Your task to perform on an android device: turn off translation in the chrome app Image 0: 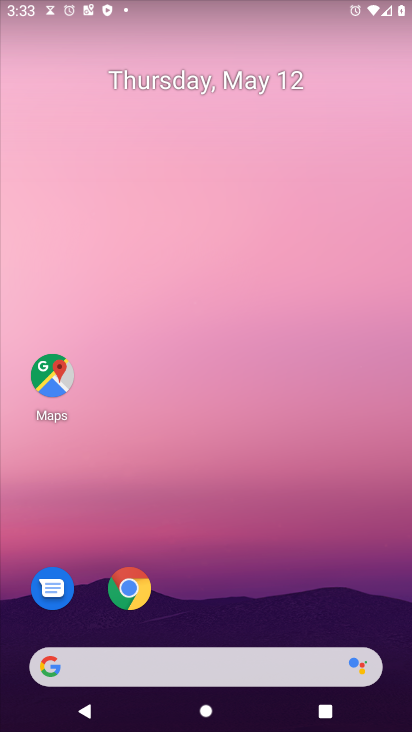
Step 0: drag from (243, 563) to (149, 2)
Your task to perform on an android device: turn off translation in the chrome app Image 1: 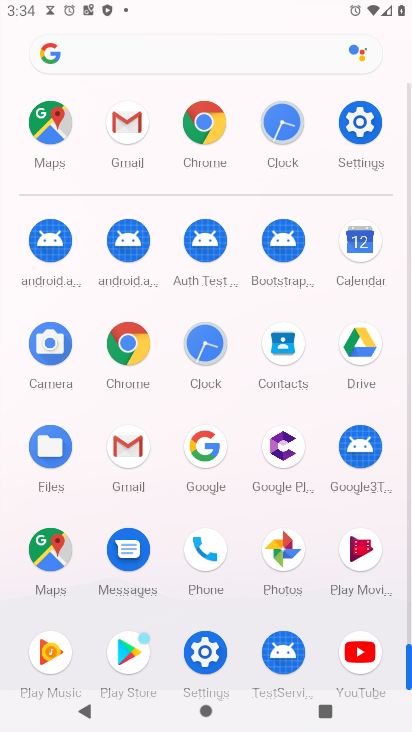
Step 1: drag from (11, 559) to (11, 260)
Your task to perform on an android device: turn off translation in the chrome app Image 2: 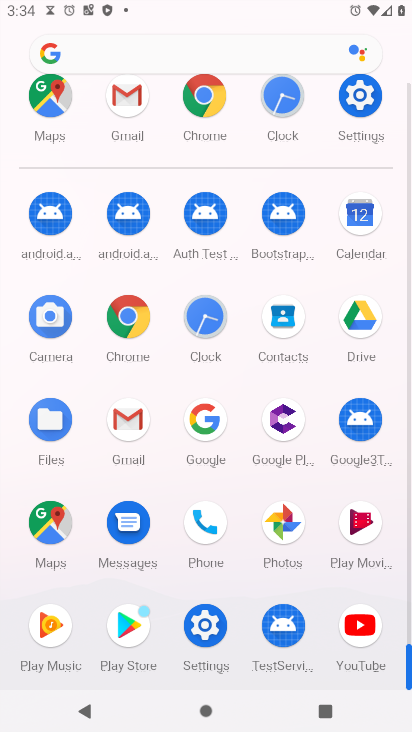
Step 2: drag from (16, 406) to (10, 184)
Your task to perform on an android device: turn off translation in the chrome app Image 3: 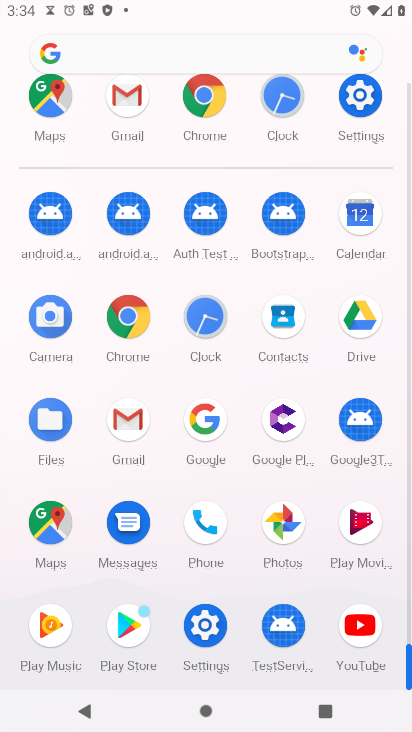
Step 3: click (117, 313)
Your task to perform on an android device: turn off translation in the chrome app Image 4: 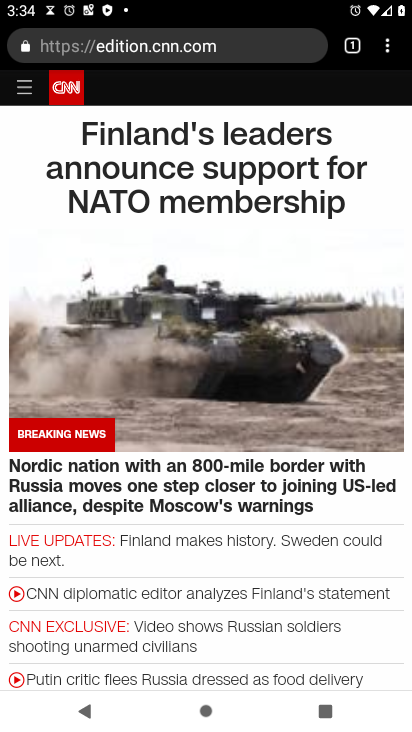
Step 4: drag from (385, 42) to (241, 544)
Your task to perform on an android device: turn off translation in the chrome app Image 5: 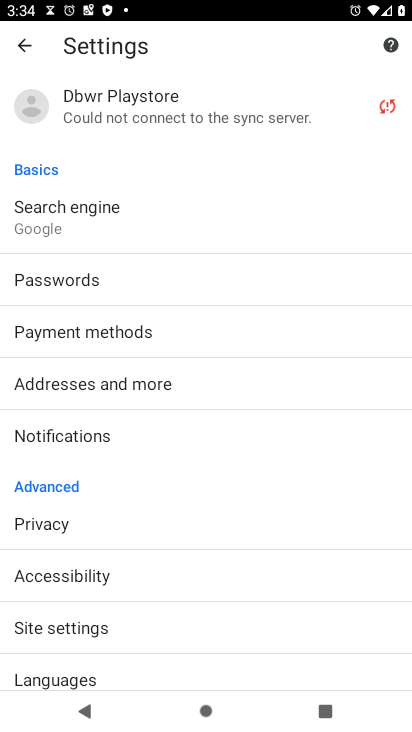
Step 5: drag from (178, 509) to (212, 167)
Your task to perform on an android device: turn off translation in the chrome app Image 6: 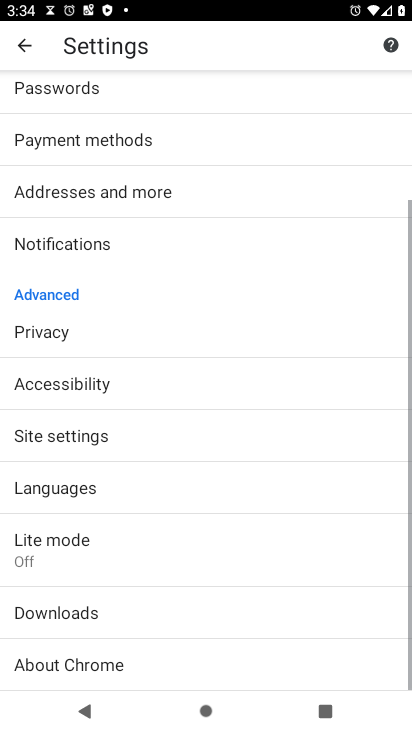
Step 6: drag from (207, 540) to (234, 162)
Your task to perform on an android device: turn off translation in the chrome app Image 7: 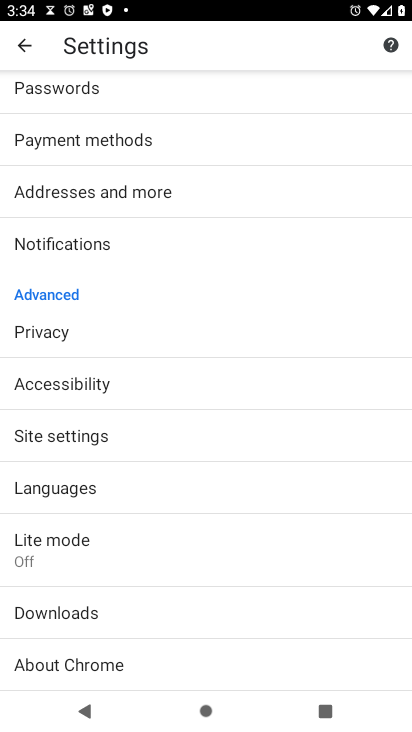
Step 7: drag from (190, 529) to (198, 211)
Your task to perform on an android device: turn off translation in the chrome app Image 8: 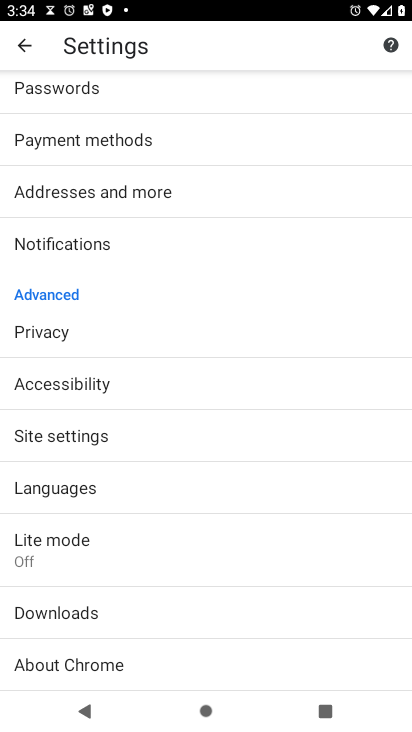
Step 8: click (88, 484)
Your task to perform on an android device: turn off translation in the chrome app Image 9: 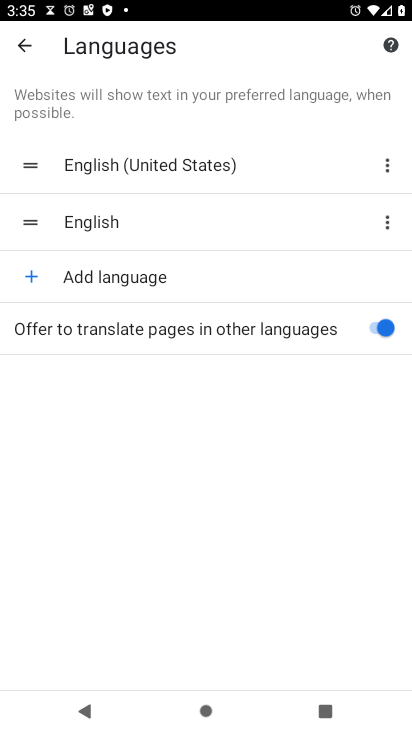
Step 9: click (369, 310)
Your task to perform on an android device: turn off translation in the chrome app Image 10: 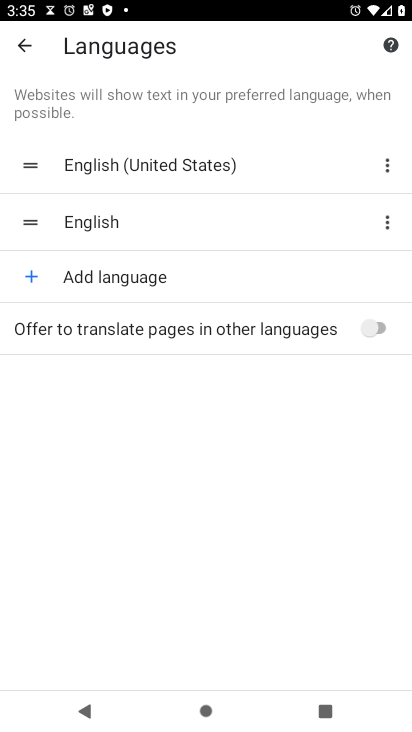
Step 10: task complete